Your task to perform on an android device: open app "Spotify" (install if not already installed) Image 0: 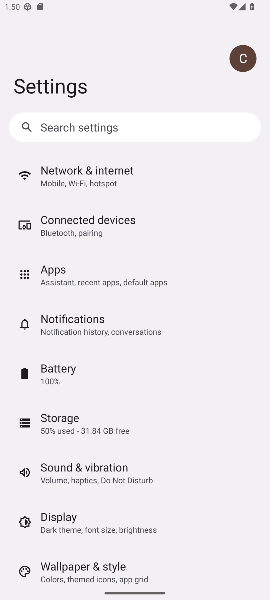
Step 0: press home button
Your task to perform on an android device: open app "Spotify" (install if not already installed) Image 1: 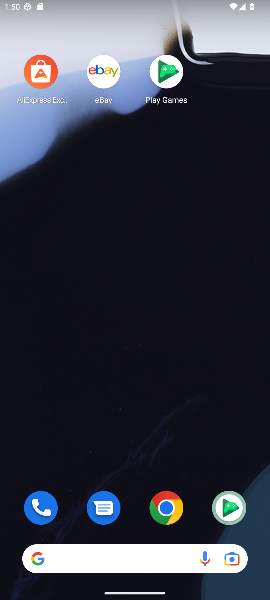
Step 1: drag from (120, 479) to (121, 75)
Your task to perform on an android device: open app "Spotify" (install if not already installed) Image 2: 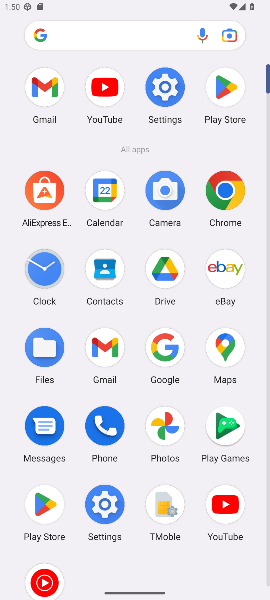
Step 2: click (227, 89)
Your task to perform on an android device: open app "Spotify" (install if not already installed) Image 3: 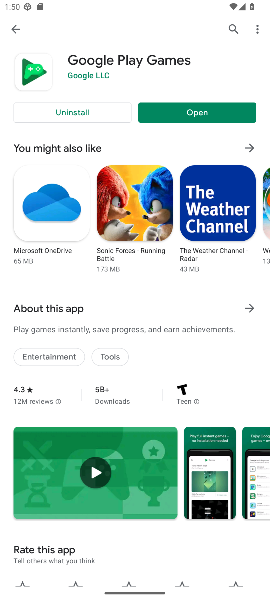
Step 3: press back button
Your task to perform on an android device: open app "Spotify" (install if not already installed) Image 4: 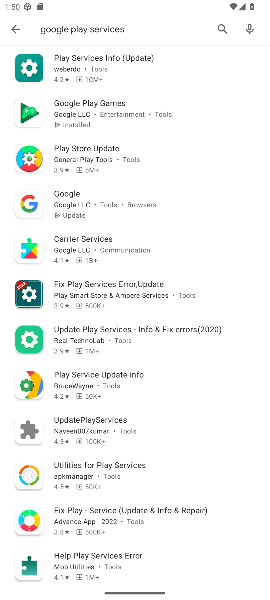
Step 4: click (224, 27)
Your task to perform on an android device: open app "Spotify" (install if not already installed) Image 5: 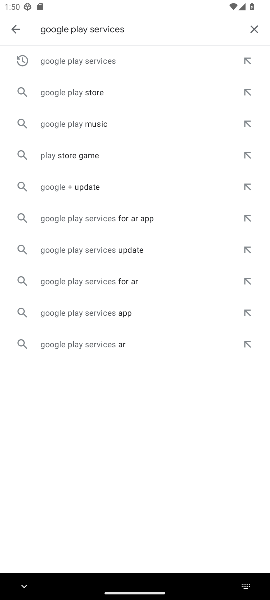
Step 5: click (258, 26)
Your task to perform on an android device: open app "Spotify" (install if not already installed) Image 6: 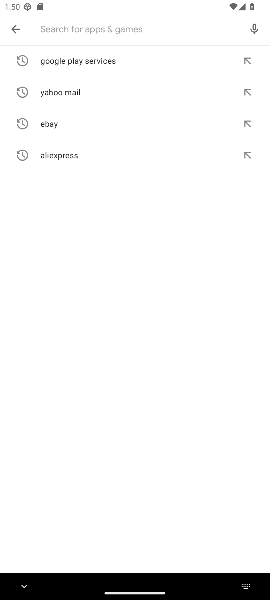
Step 6: type "spotify"
Your task to perform on an android device: open app "Spotify" (install if not already installed) Image 7: 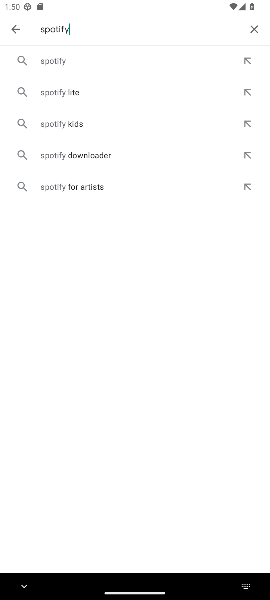
Step 7: click (50, 55)
Your task to perform on an android device: open app "Spotify" (install if not already installed) Image 8: 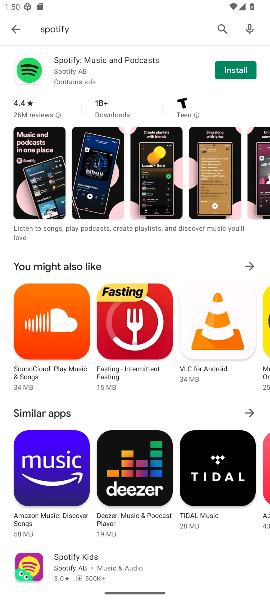
Step 8: click (236, 67)
Your task to perform on an android device: open app "Spotify" (install if not already installed) Image 9: 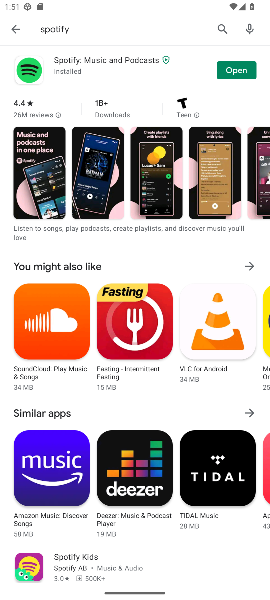
Step 9: click (238, 71)
Your task to perform on an android device: open app "Spotify" (install if not already installed) Image 10: 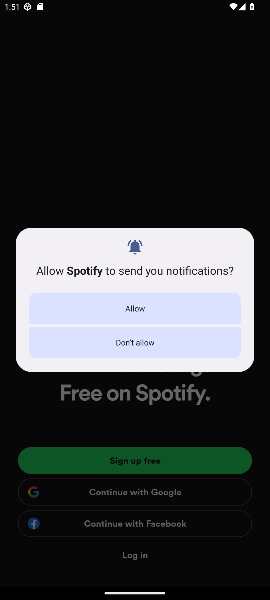
Step 10: click (129, 310)
Your task to perform on an android device: open app "Spotify" (install if not already installed) Image 11: 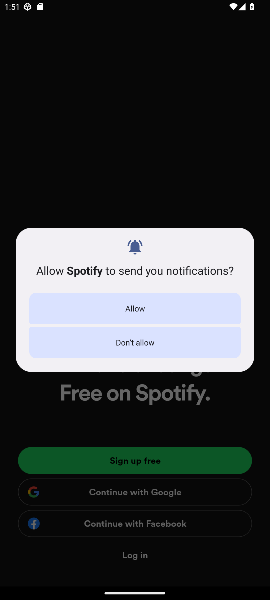
Step 11: click (146, 311)
Your task to perform on an android device: open app "Spotify" (install if not already installed) Image 12: 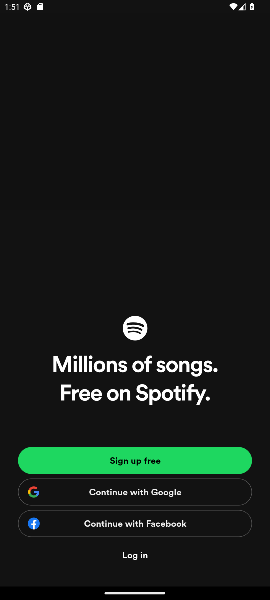
Step 12: task complete